Your task to perform on an android device: show emergency info Image 0: 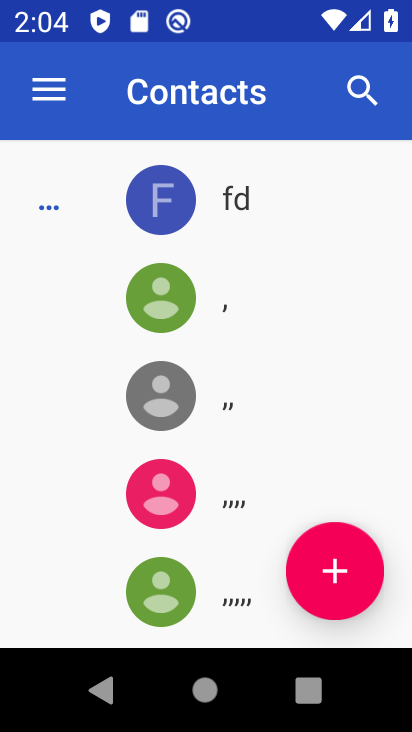
Step 0: press home button
Your task to perform on an android device: show emergency info Image 1: 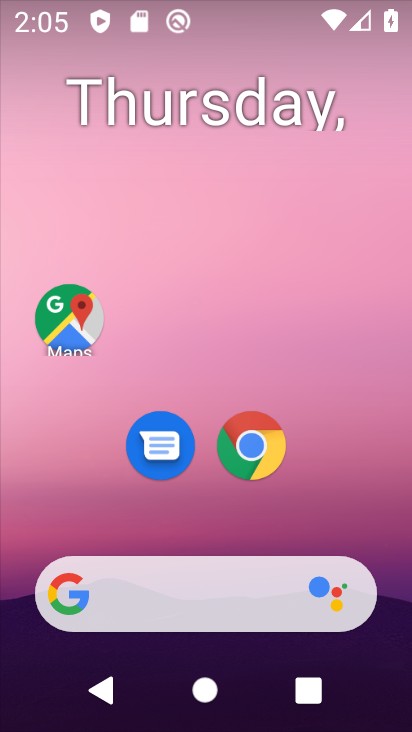
Step 1: drag from (29, 586) to (238, 200)
Your task to perform on an android device: show emergency info Image 2: 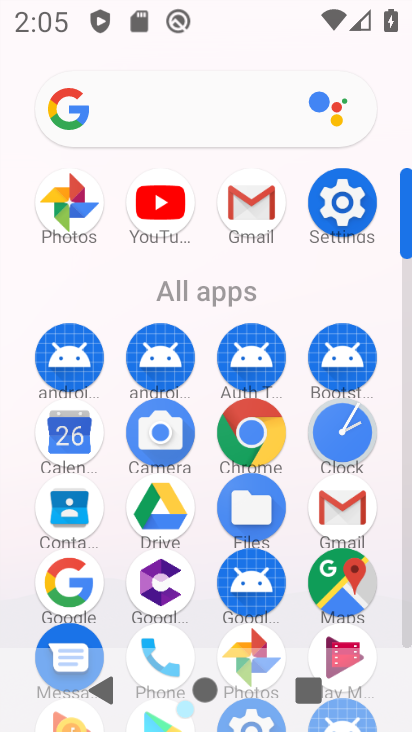
Step 2: click (330, 197)
Your task to perform on an android device: show emergency info Image 3: 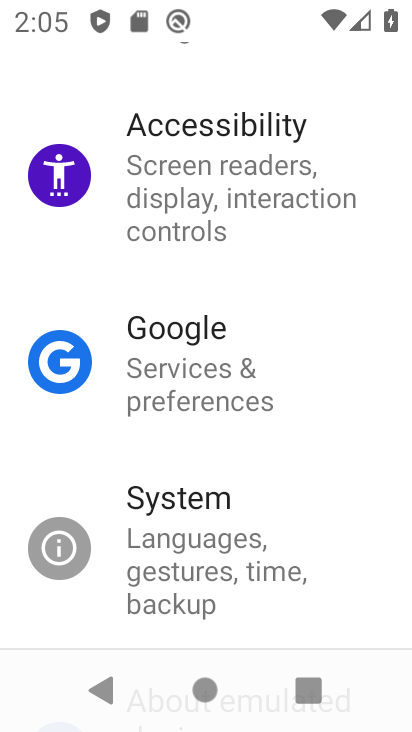
Step 3: drag from (25, 492) to (274, 107)
Your task to perform on an android device: show emergency info Image 4: 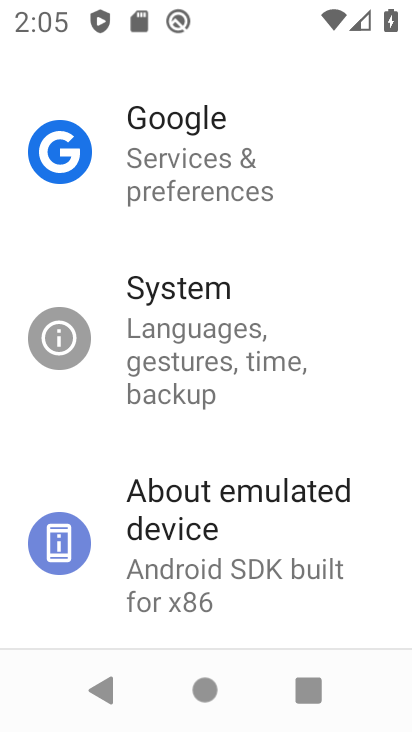
Step 4: drag from (4, 488) to (255, 120)
Your task to perform on an android device: show emergency info Image 5: 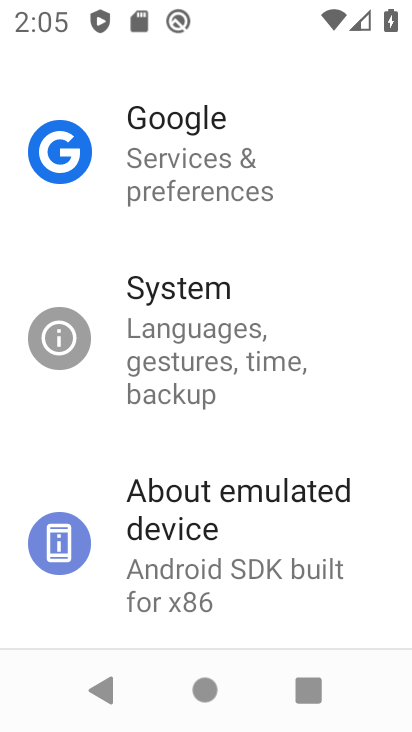
Step 5: click (164, 545)
Your task to perform on an android device: show emergency info Image 6: 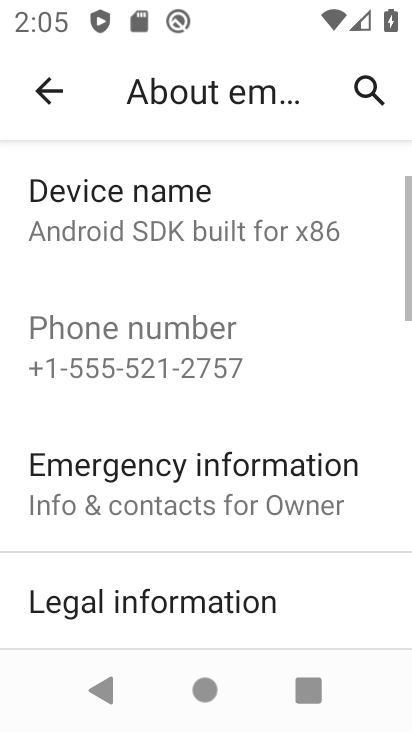
Step 6: click (197, 479)
Your task to perform on an android device: show emergency info Image 7: 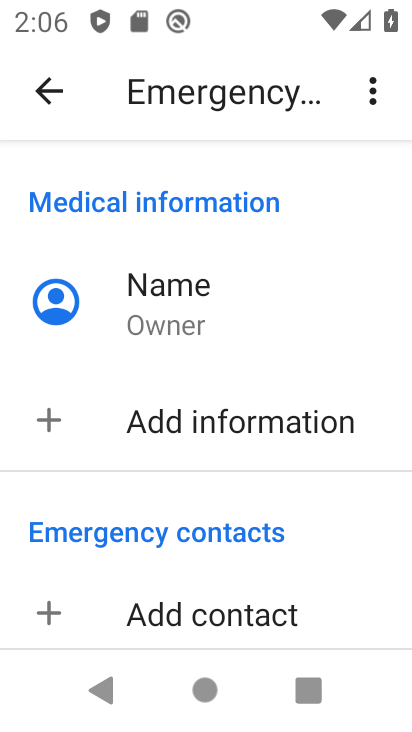
Step 7: task complete